Your task to perform on an android device: Turn on the flashlight Image 0: 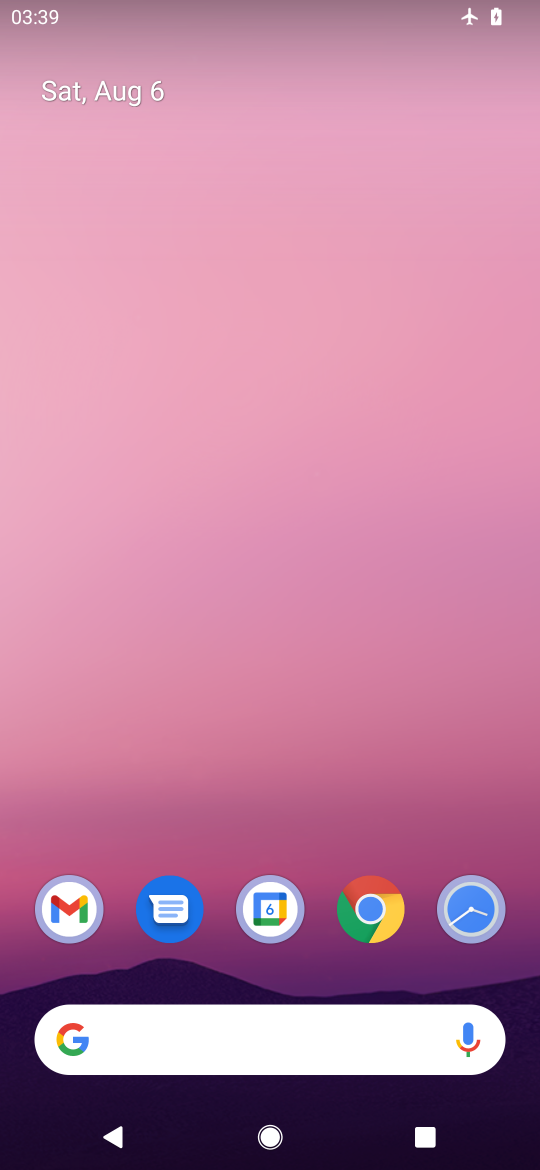
Step 0: press back button
Your task to perform on an android device: Turn on the flashlight Image 1: 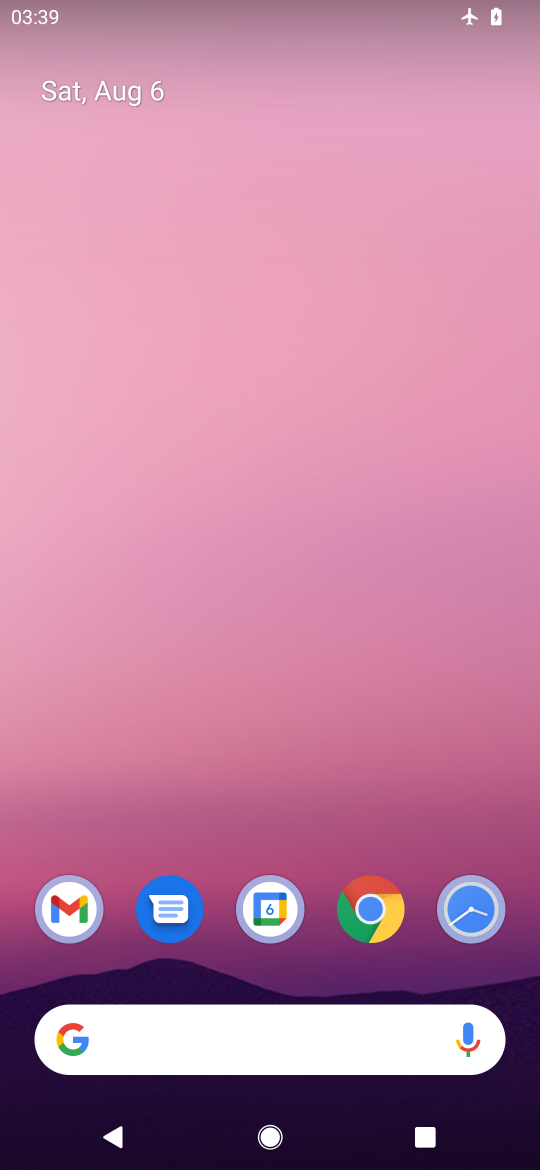
Step 1: drag from (199, 962) to (364, 0)
Your task to perform on an android device: Turn on the flashlight Image 2: 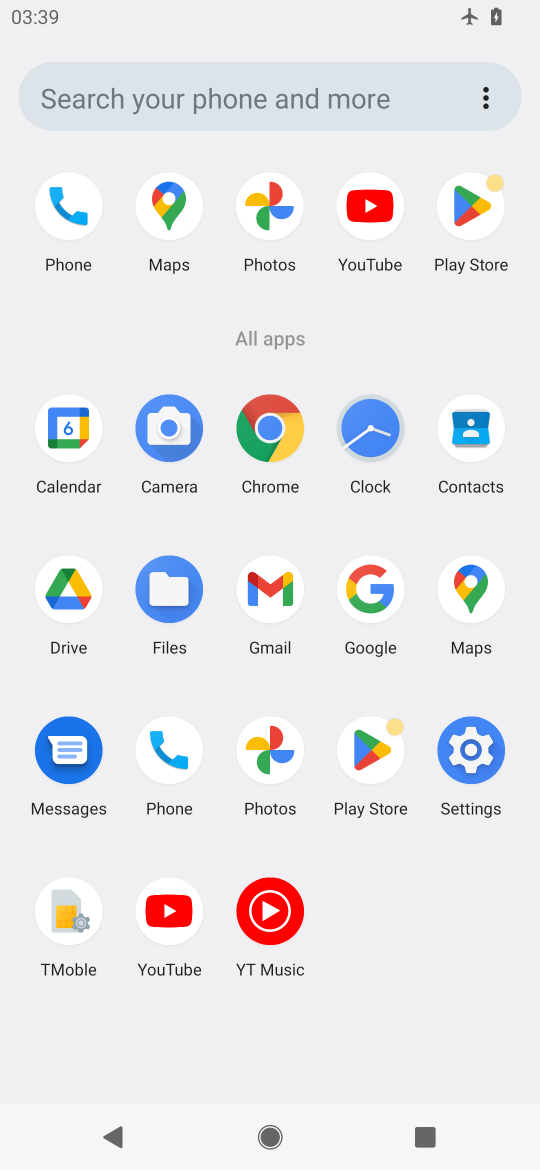
Step 2: click (485, 811)
Your task to perform on an android device: Turn on the flashlight Image 3: 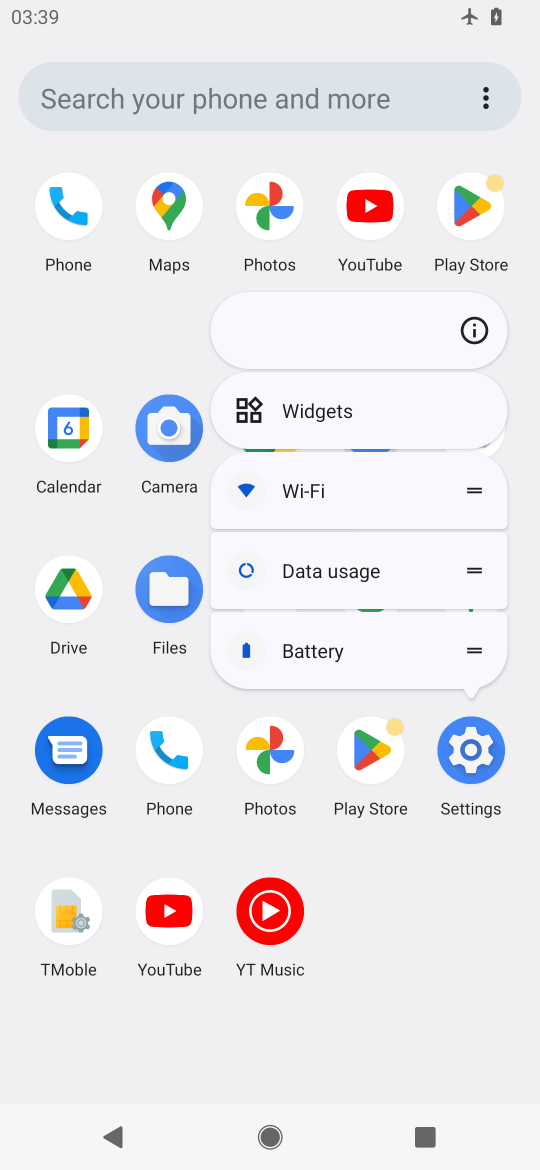
Step 3: click (470, 755)
Your task to perform on an android device: Turn on the flashlight Image 4: 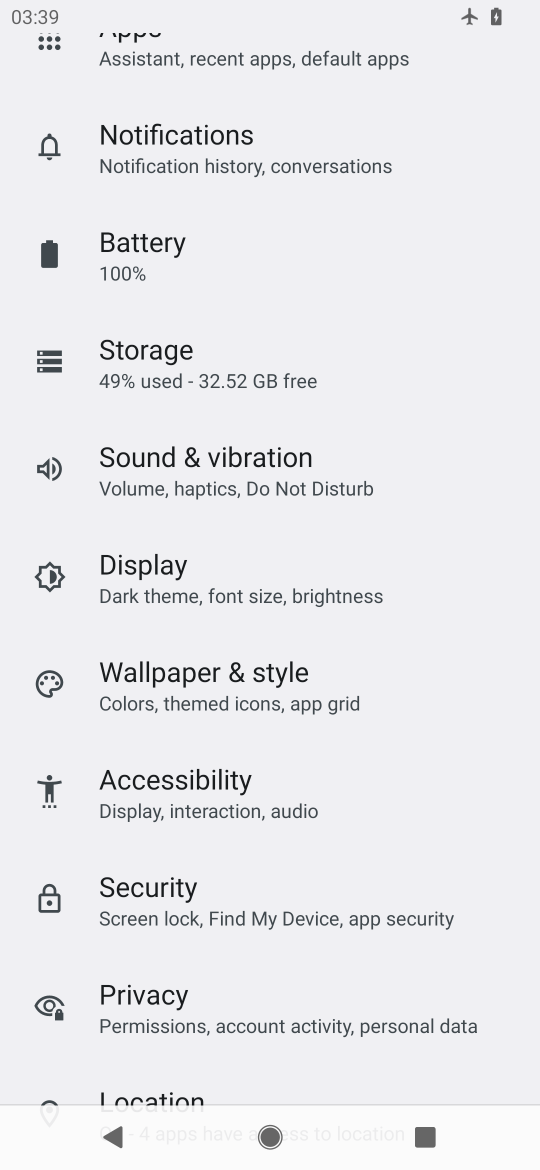
Step 4: drag from (250, 217) to (220, 1014)
Your task to perform on an android device: Turn on the flashlight Image 5: 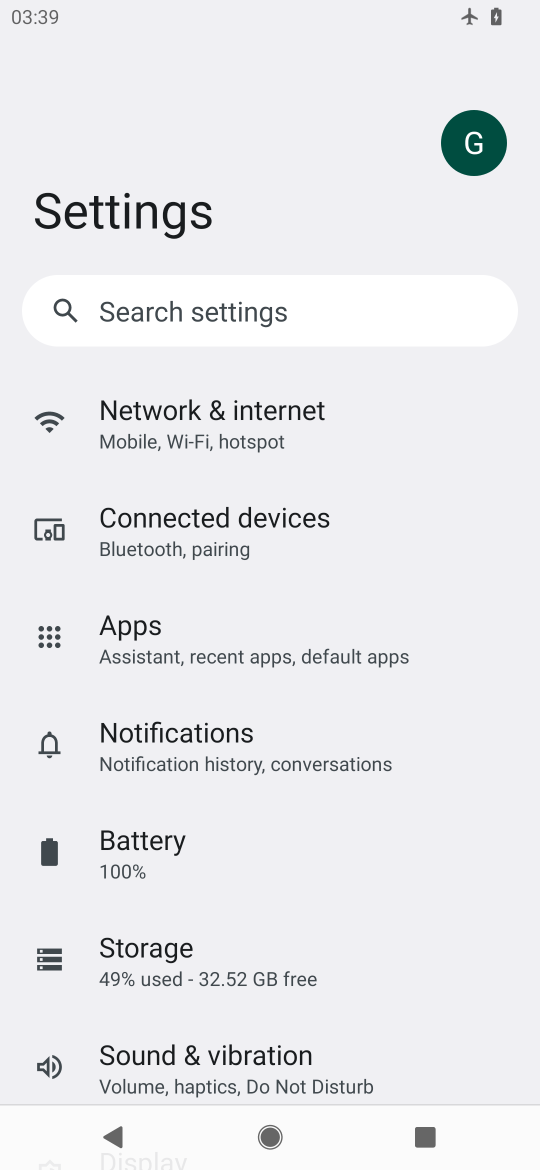
Step 5: click (179, 88)
Your task to perform on an android device: Turn on the flashlight Image 6: 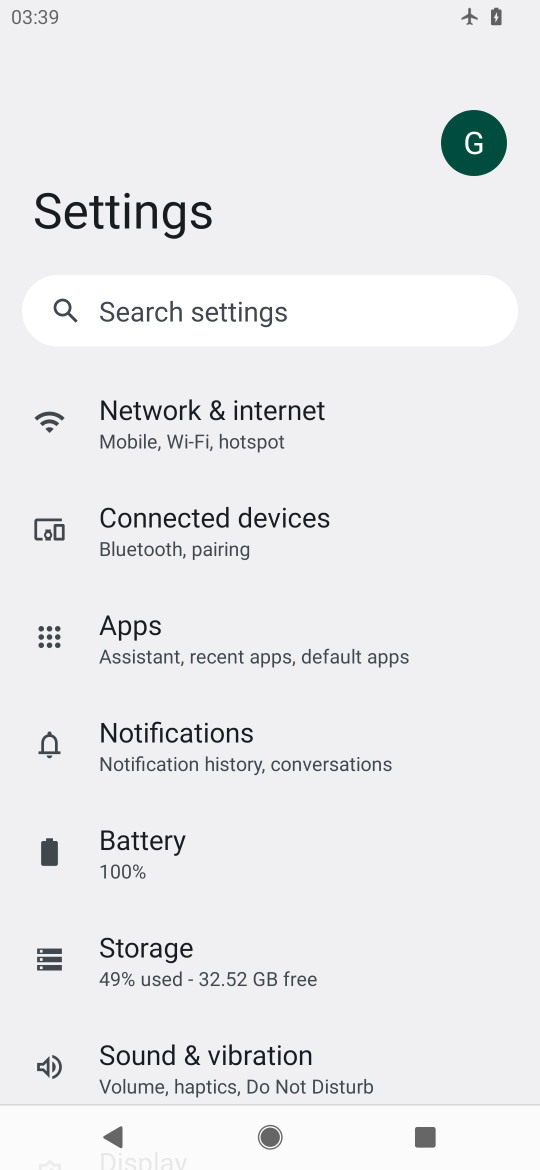
Step 6: click (150, 293)
Your task to perform on an android device: Turn on the flashlight Image 7: 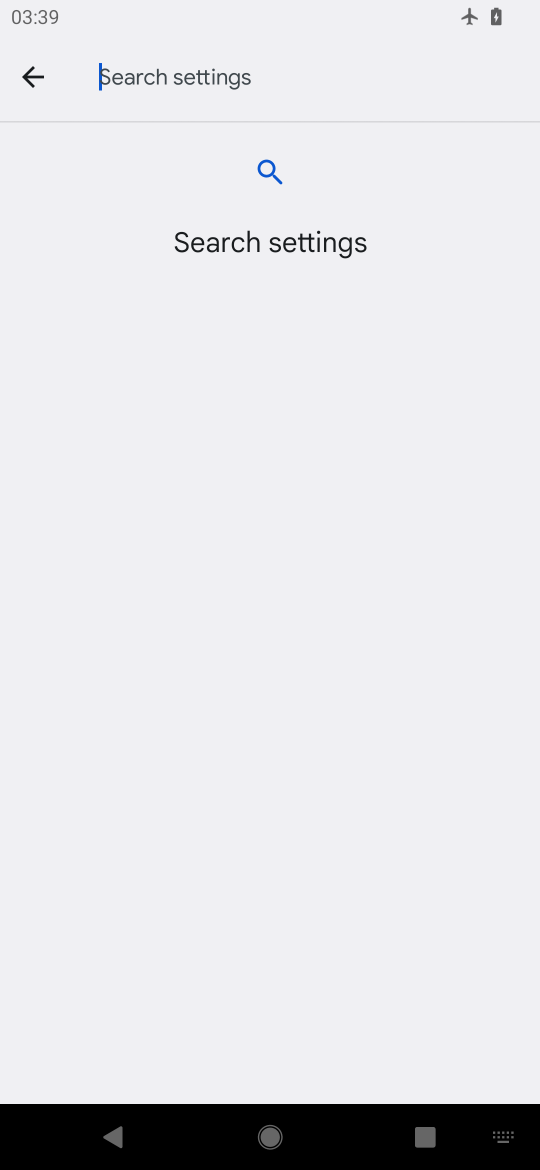
Step 7: type "flashlight"
Your task to perform on an android device: Turn on the flashlight Image 8: 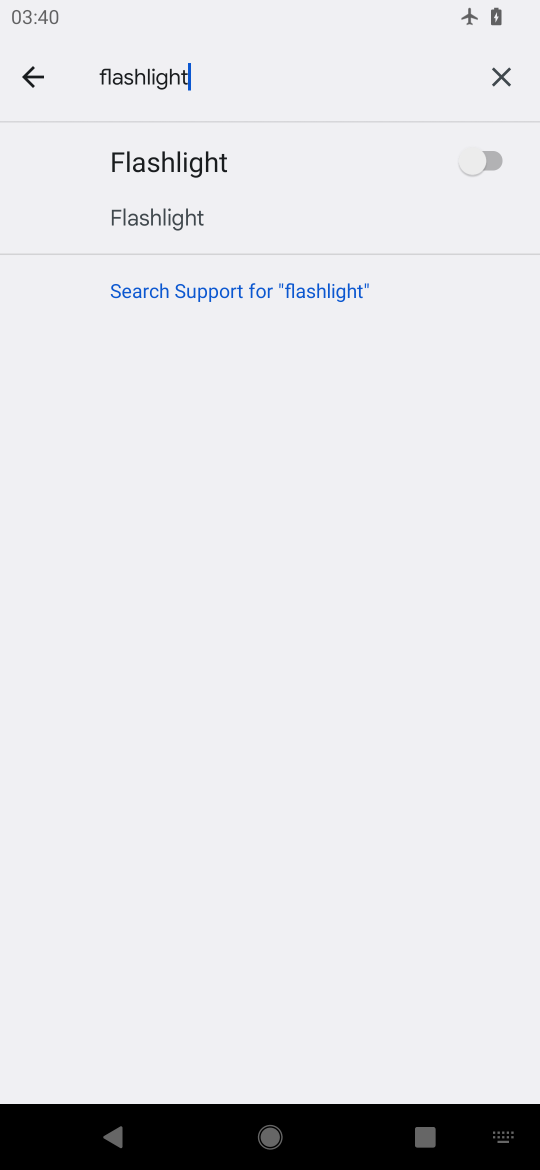
Step 8: click (459, 169)
Your task to perform on an android device: Turn on the flashlight Image 9: 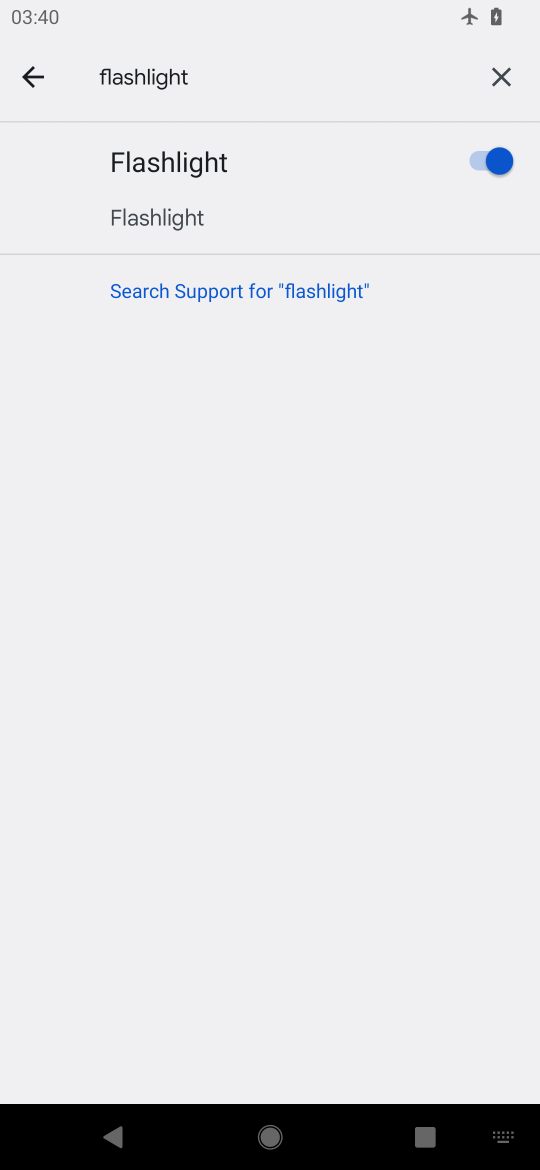
Step 9: task complete